Your task to perform on an android device: Open Chrome and go to the settings page Image 0: 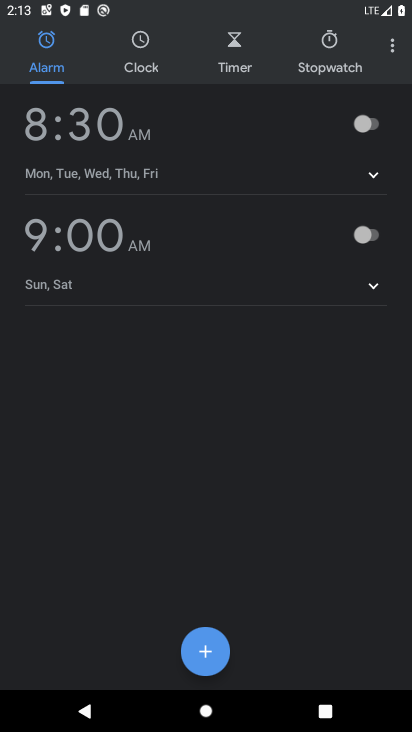
Step 0: drag from (0, 209) to (364, 231)
Your task to perform on an android device: Open Chrome and go to the settings page Image 1: 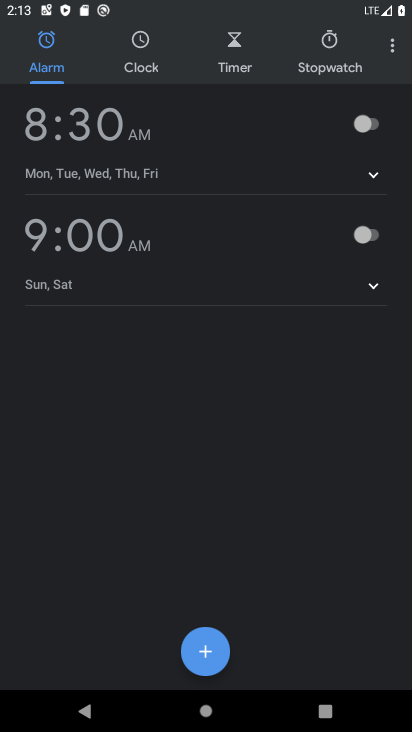
Step 1: press home button
Your task to perform on an android device: Open Chrome and go to the settings page Image 2: 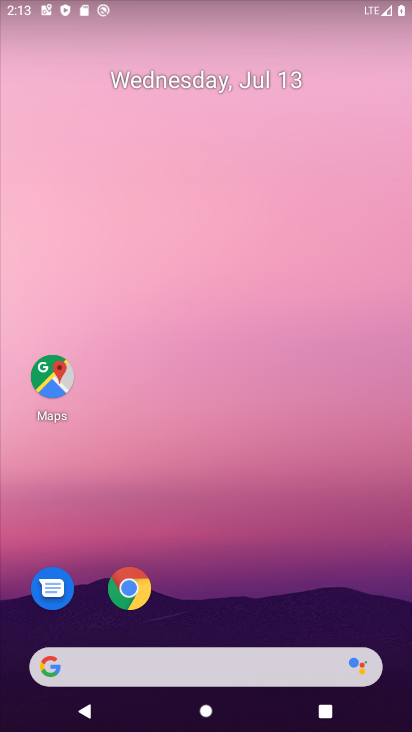
Step 2: click (130, 584)
Your task to perform on an android device: Open Chrome and go to the settings page Image 3: 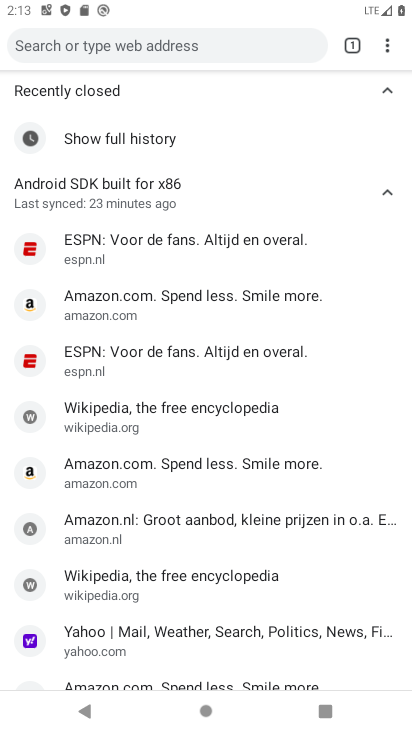
Step 3: click (385, 47)
Your task to perform on an android device: Open Chrome and go to the settings page Image 4: 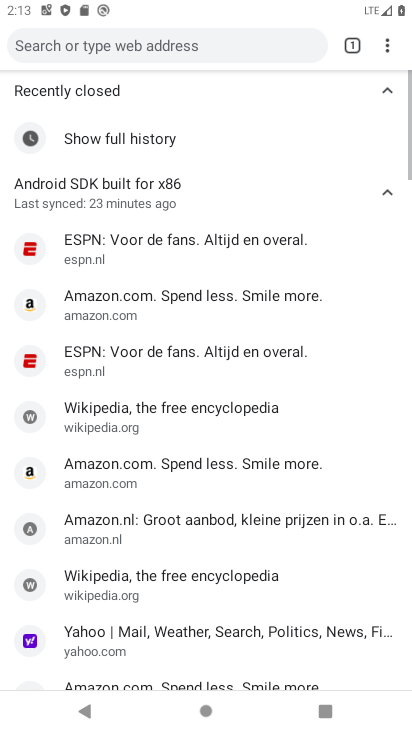
Step 4: click (389, 43)
Your task to perform on an android device: Open Chrome and go to the settings page Image 5: 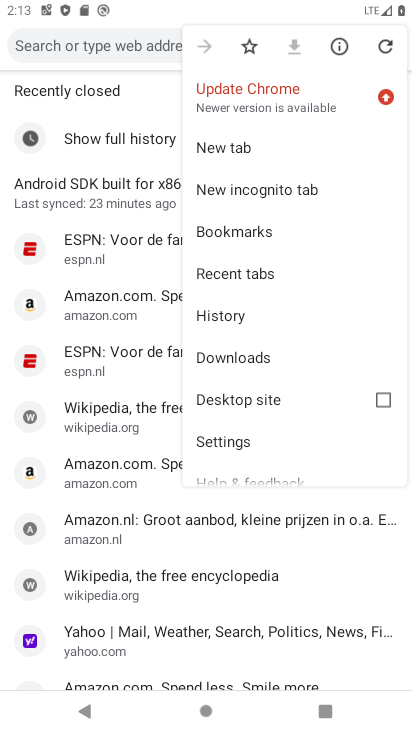
Step 5: click (231, 437)
Your task to perform on an android device: Open Chrome and go to the settings page Image 6: 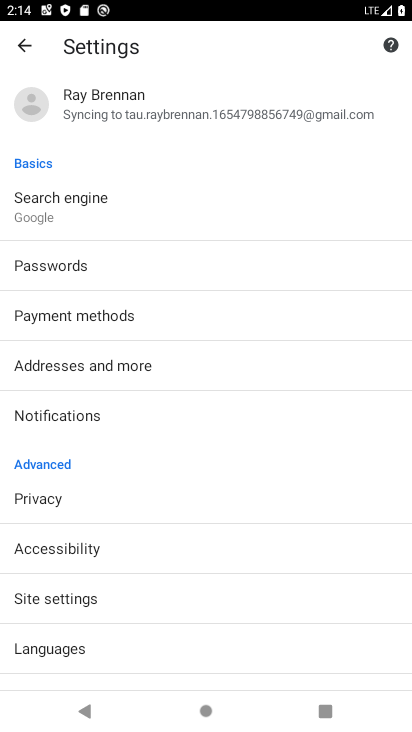
Step 6: task complete